Your task to perform on an android device: toggle sleep mode Image 0: 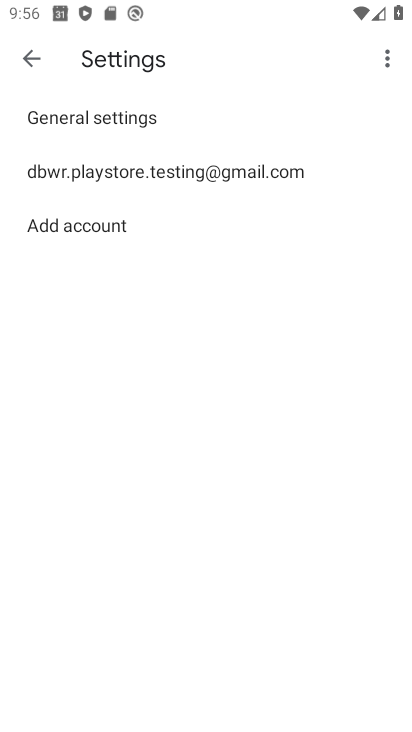
Step 0: press home button
Your task to perform on an android device: toggle sleep mode Image 1: 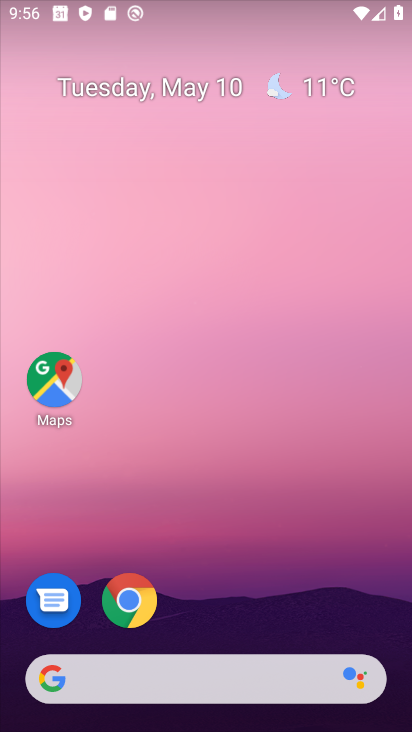
Step 1: drag from (325, 577) to (320, 10)
Your task to perform on an android device: toggle sleep mode Image 2: 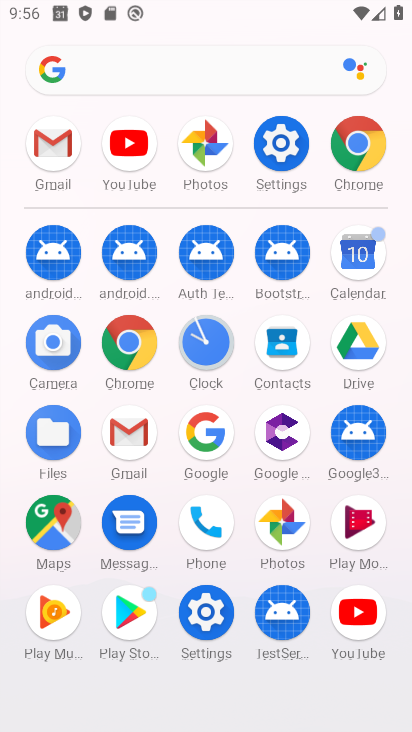
Step 2: drag from (404, 352) to (412, 61)
Your task to perform on an android device: toggle sleep mode Image 3: 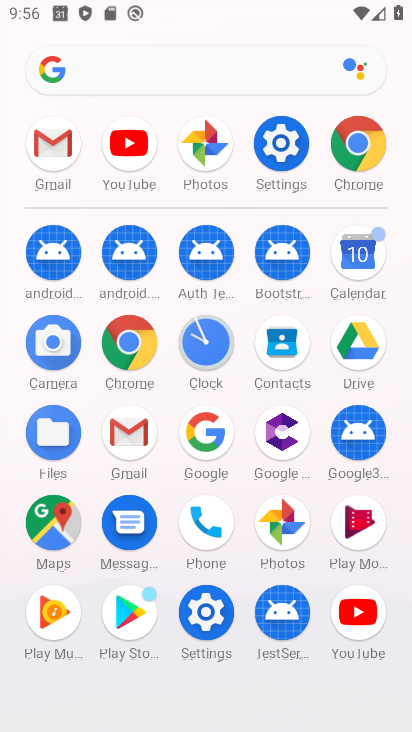
Step 3: click (273, 140)
Your task to perform on an android device: toggle sleep mode Image 4: 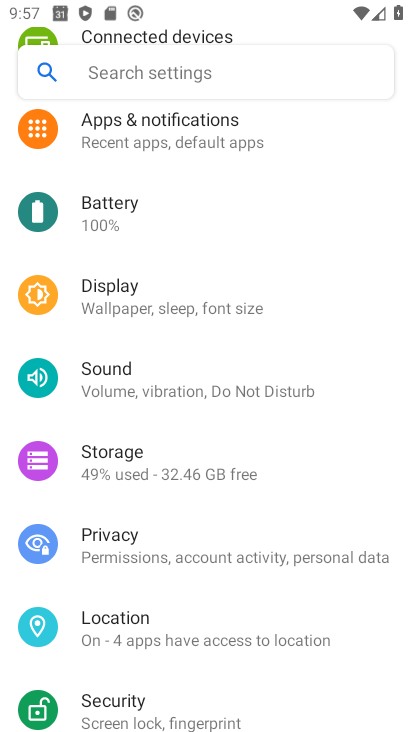
Step 4: click (173, 296)
Your task to perform on an android device: toggle sleep mode Image 5: 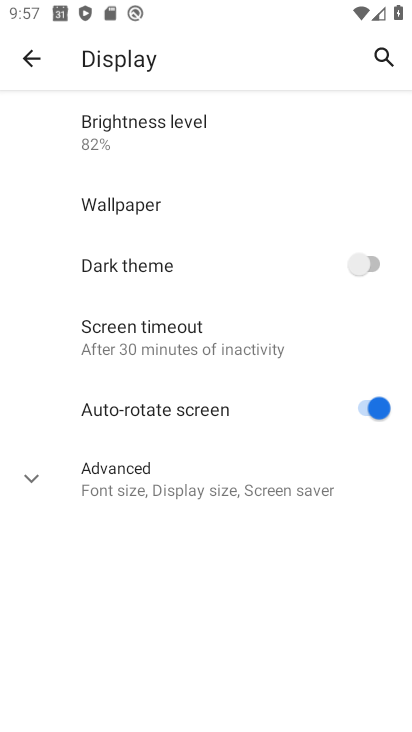
Step 5: click (149, 332)
Your task to perform on an android device: toggle sleep mode Image 6: 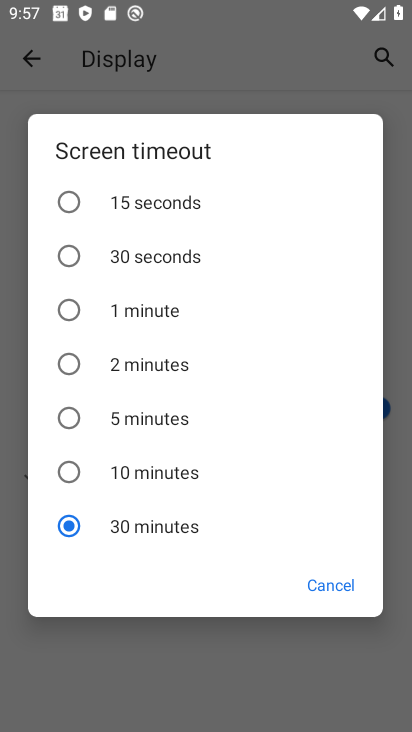
Step 6: click (101, 311)
Your task to perform on an android device: toggle sleep mode Image 7: 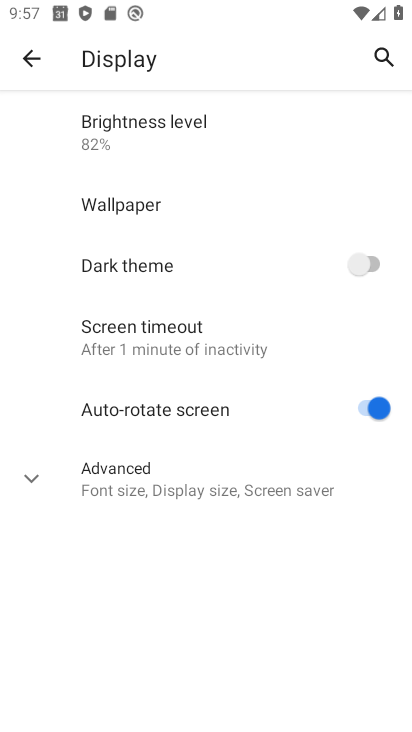
Step 7: task complete